Your task to perform on an android device: all mails in gmail Image 0: 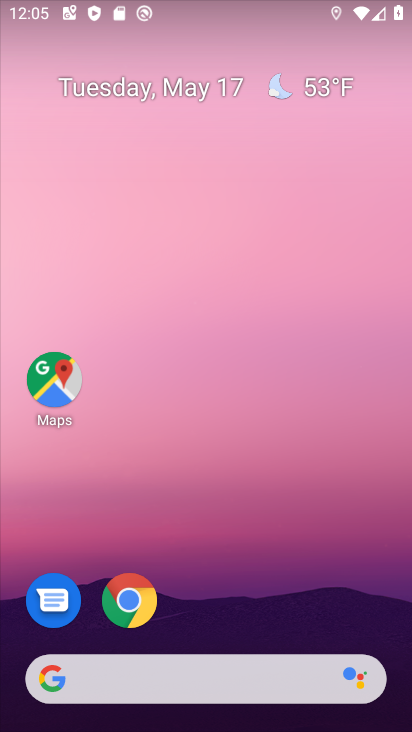
Step 0: drag from (211, 619) to (227, 163)
Your task to perform on an android device: all mails in gmail Image 1: 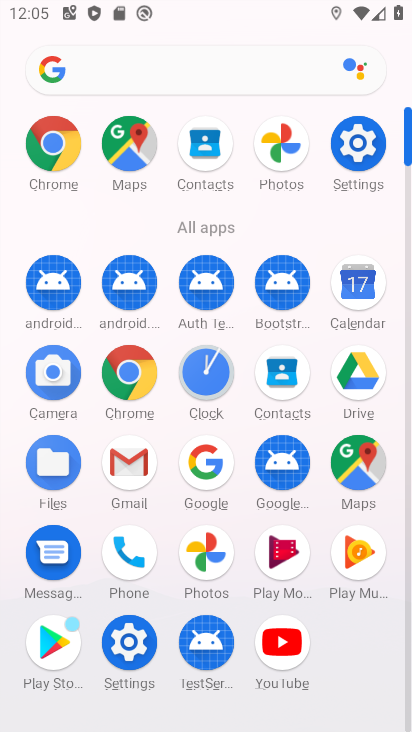
Step 1: click (125, 467)
Your task to perform on an android device: all mails in gmail Image 2: 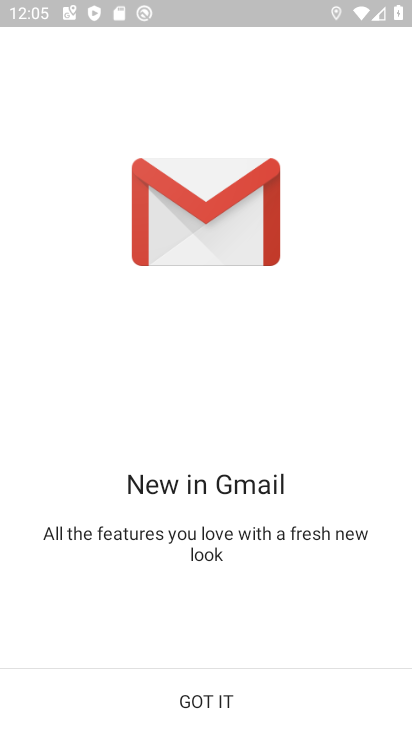
Step 2: click (202, 702)
Your task to perform on an android device: all mails in gmail Image 3: 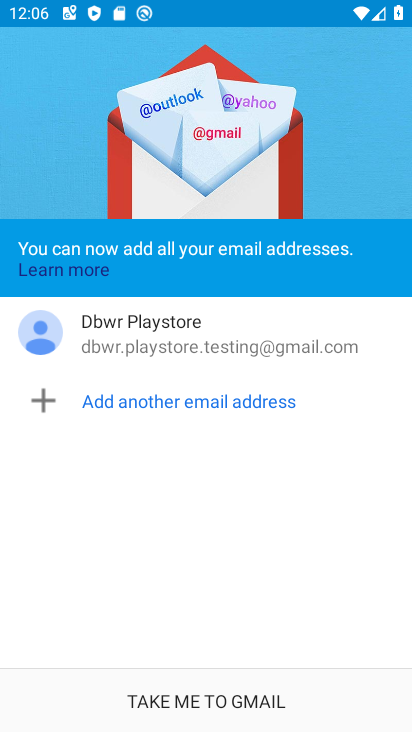
Step 3: click (202, 702)
Your task to perform on an android device: all mails in gmail Image 4: 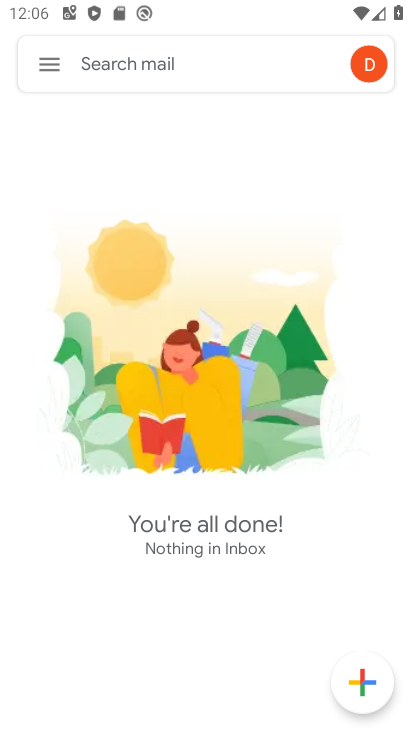
Step 4: click (41, 69)
Your task to perform on an android device: all mails in gmail Image 5: 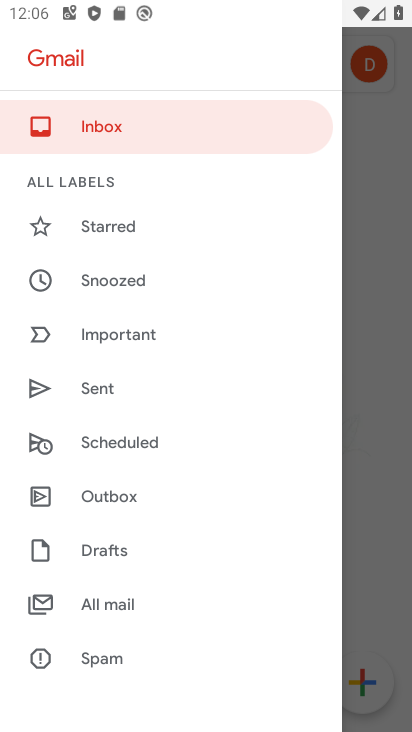
Step 5: click (109, 612)
Your task to perform on an android device: all mails in gmail Image 6: 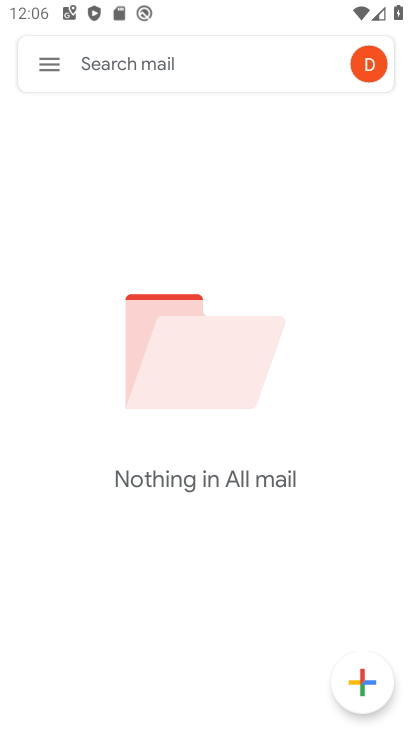
Step 6: task complete